Your task to perform on an android device: Go to settings Image 0: 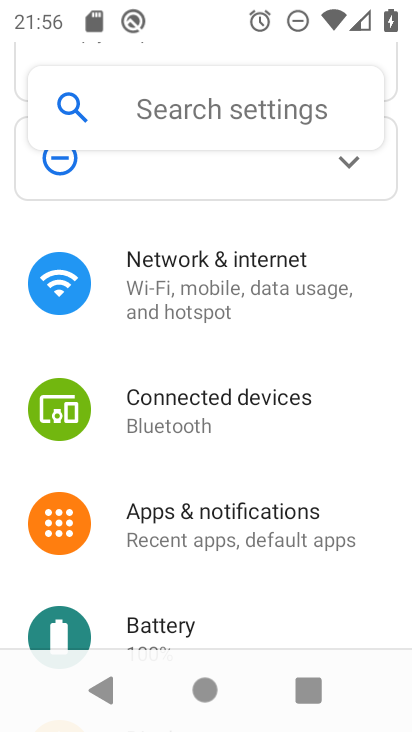
Step 0: press home button
Your task to perform on an android device: Go to settings Image 1: 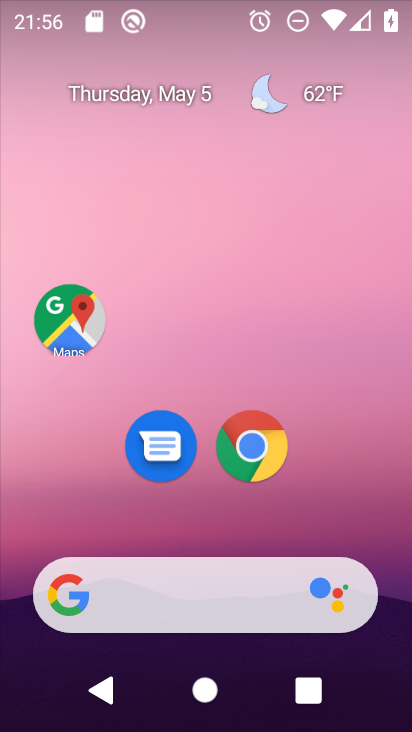
Step 1: drag from (225, 623) to (237, 218)
Your task to perform on an android device: Go to settings Image 2: 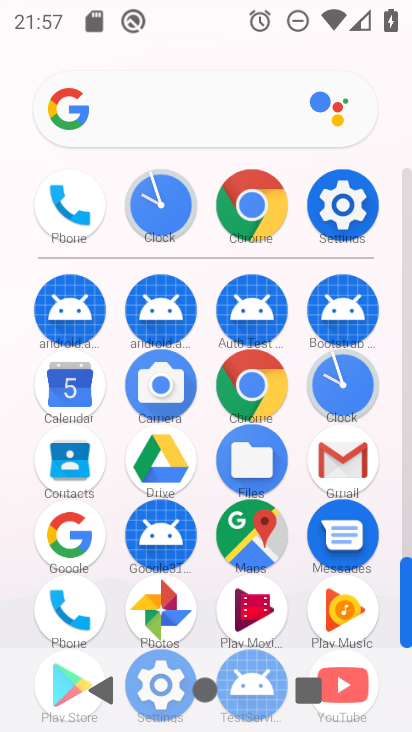
Step 2: click (334, 219)
Your task to perform on an android device: Go to settings Image 3: 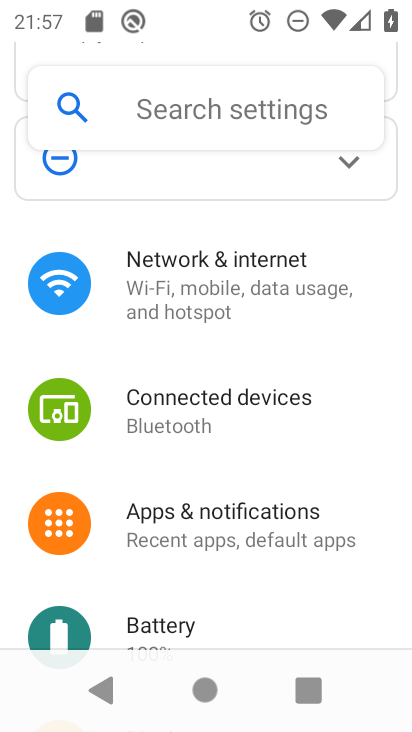
Step 3: task complete